Your task to perform on an android device: change the clock display to digital Image 0: 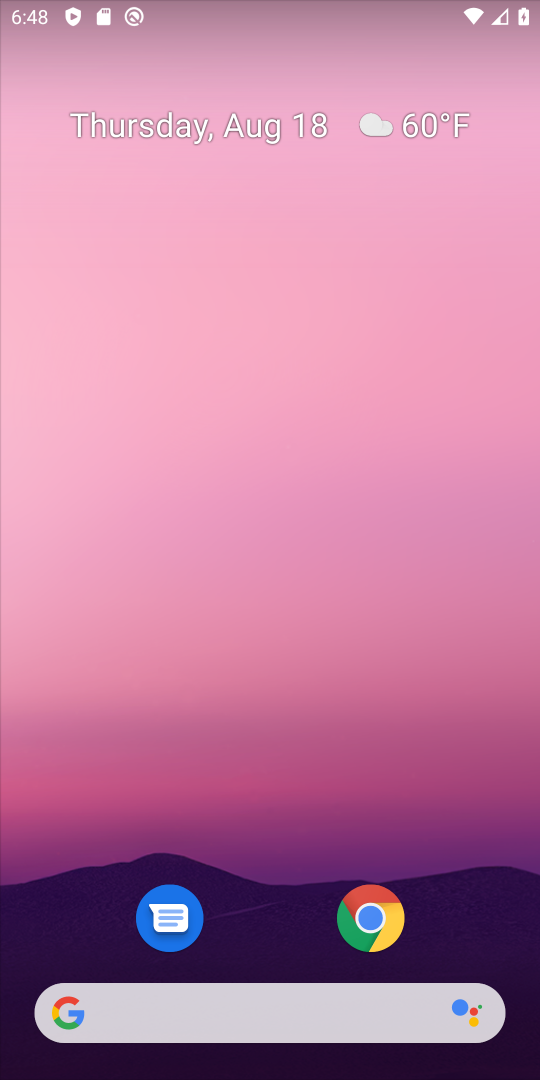
Step 0: press home button
Your task to perform on an android device: change the clock display to digital Image 1: 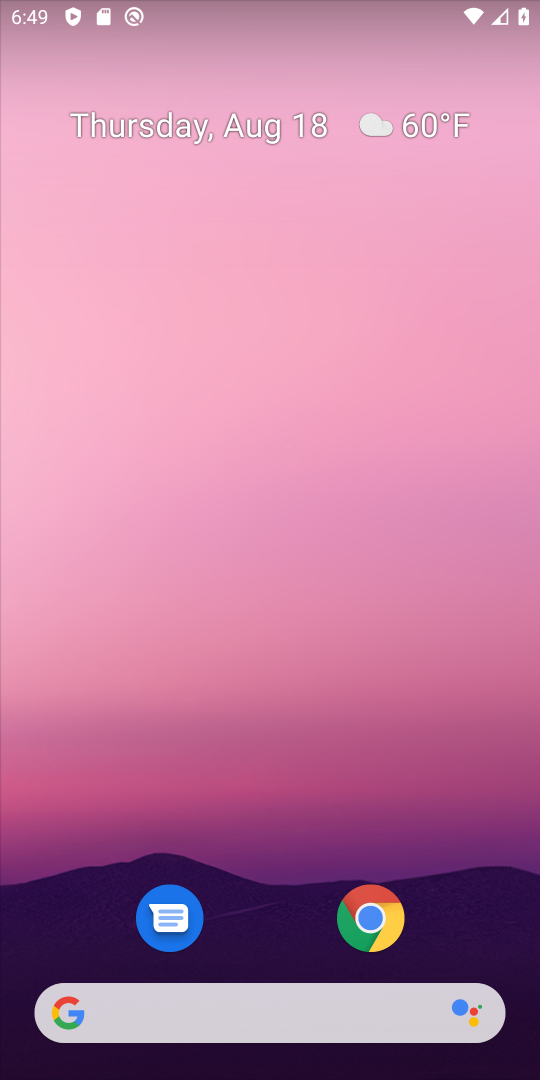
Step 1: drag from (264, 964) to (418, 60)
Your task to perform on an android device: change the clock display to digital Image 2: 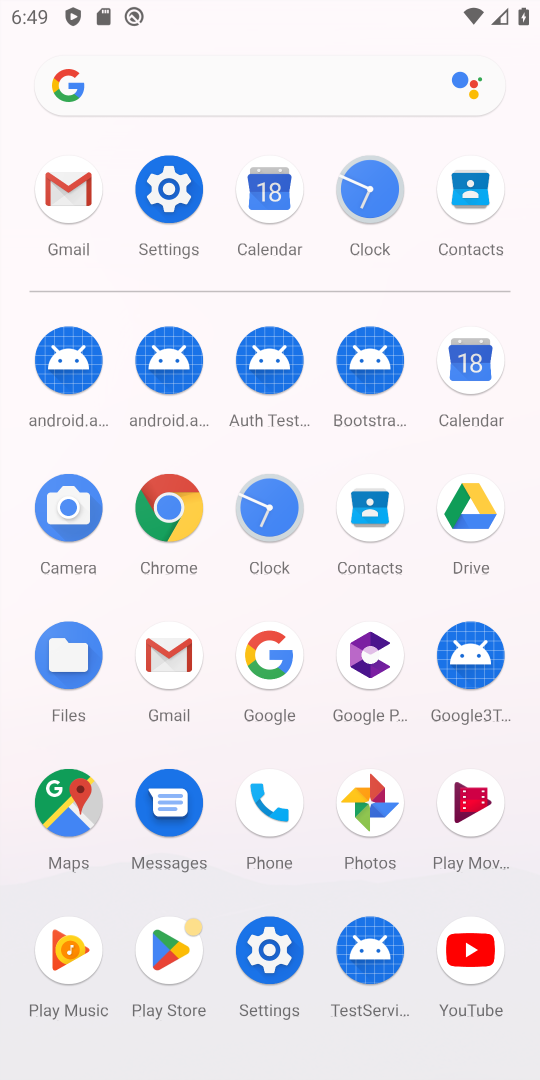
Step 2: click (384, 194)
Your task to perform on an android device: change the clock display to digital Image 3: 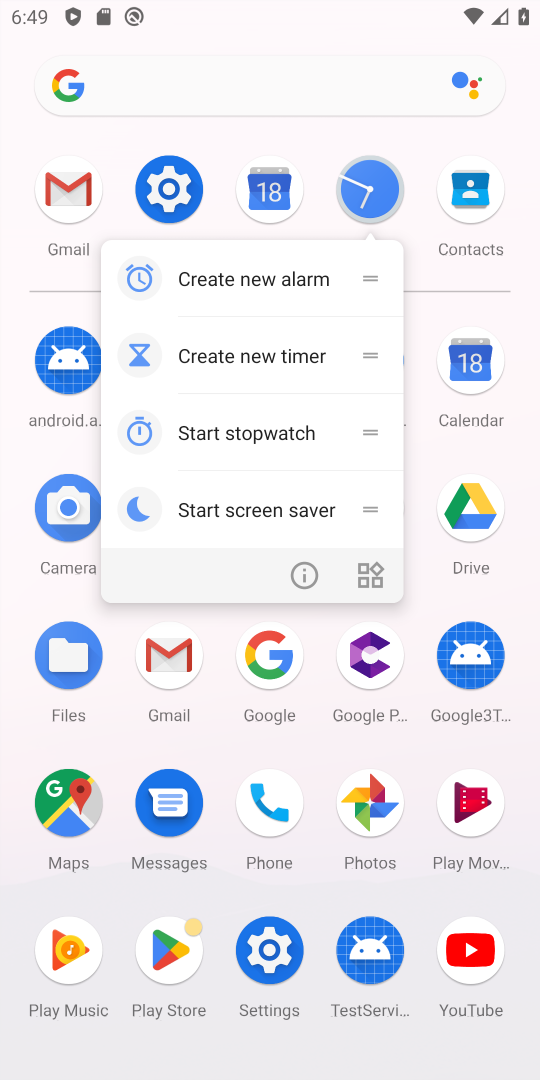
Step 3: click (372, 208)
Your task to perform on an android device: change the clock display to digital Image 4: 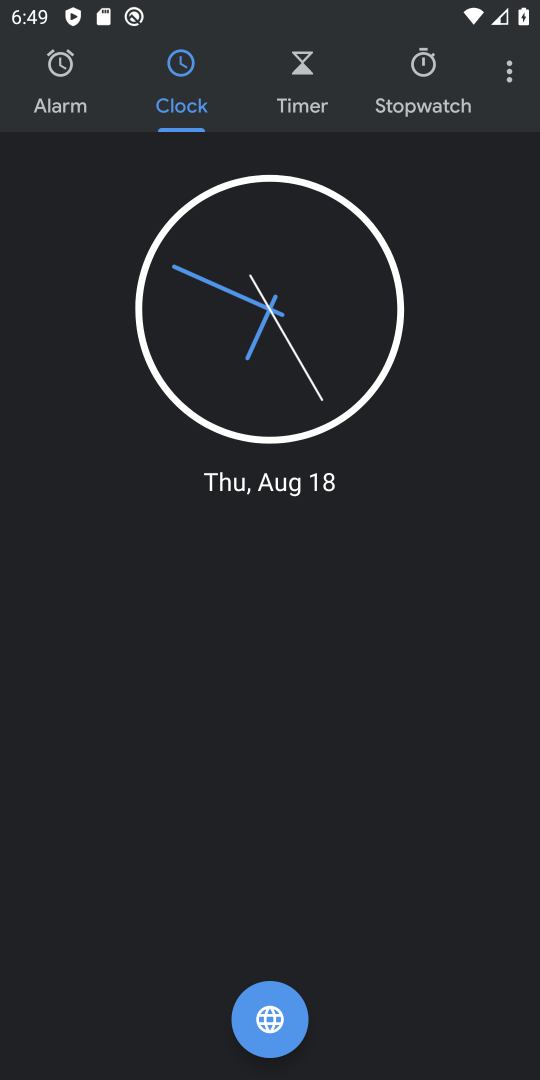
Step 4: click (507, 62)
Your task to perform on an android device: change the clock display to digital Image 5: 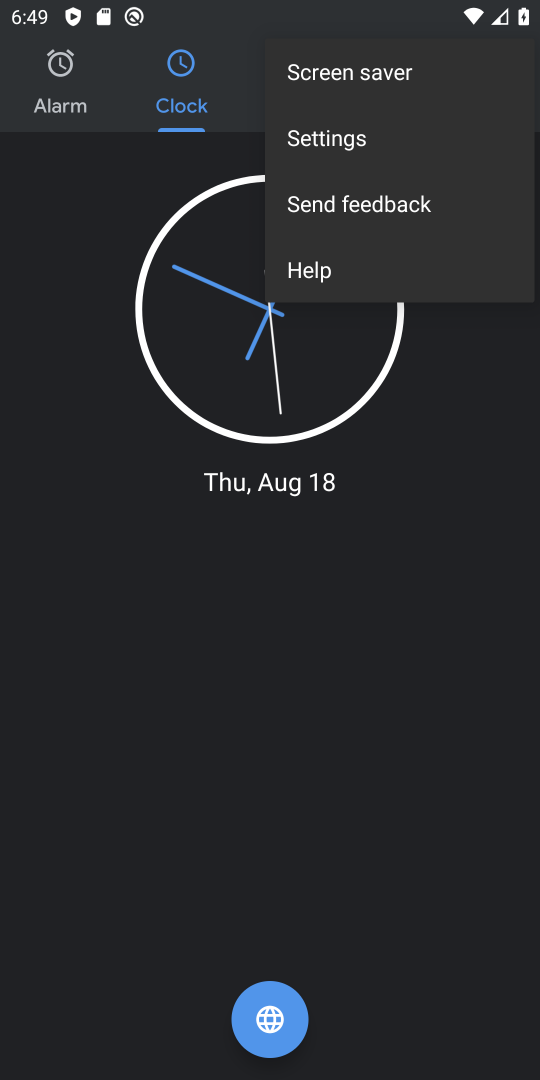
Step 5: click (346, 144)
Your task to perform on an android device: change the clock display to digital Image 6: 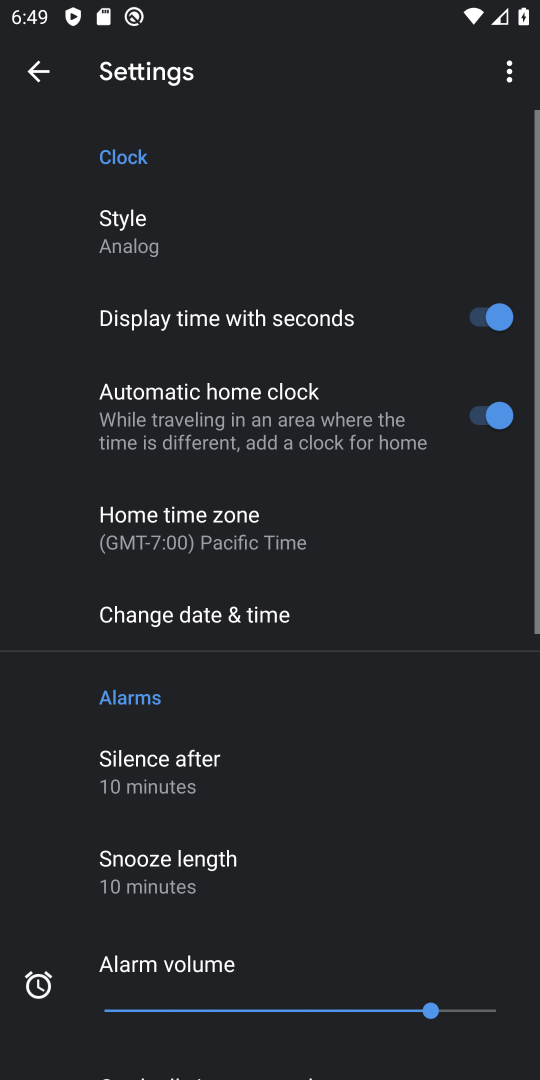
Step 6: click (130, 248)
Your task to perform on an android device: change the clock display to digital Image 7: 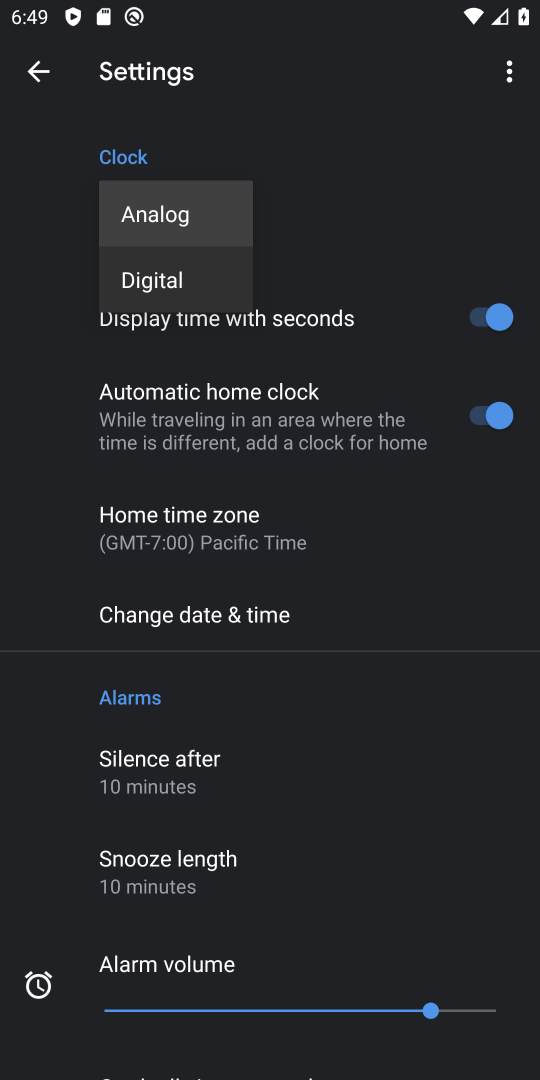
Step 7: click (155, 286)
Your task to perform on an android device: change the clock display to digital Image 8: 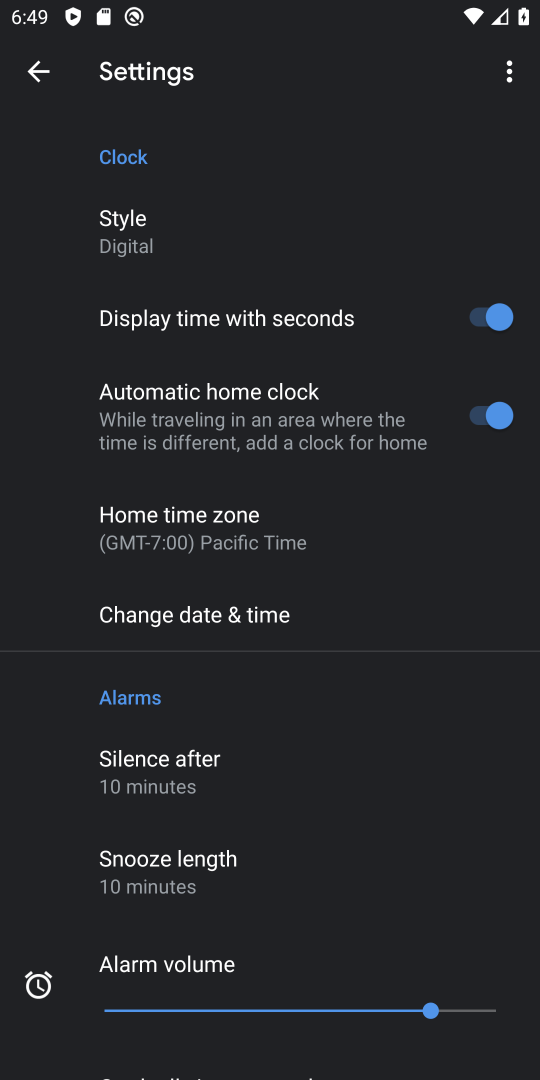
Step 8: task complete